Your task to perform on an android device: Open Google Chrome Image 0: 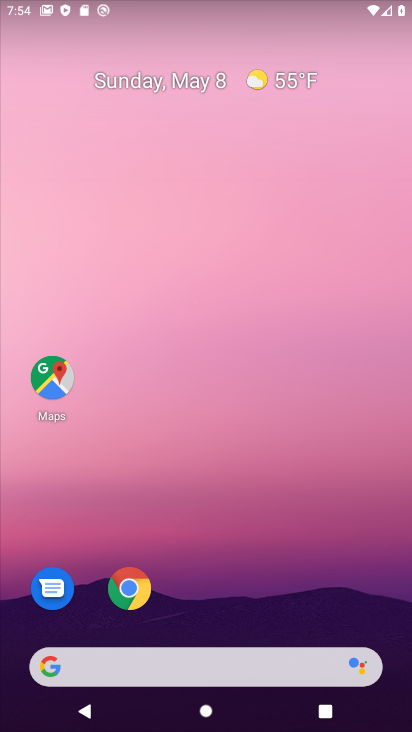
Step 0: drag from (339, 603) to (222, 21)
Your task to perform on an android device: Open Google Chrome Image 1: 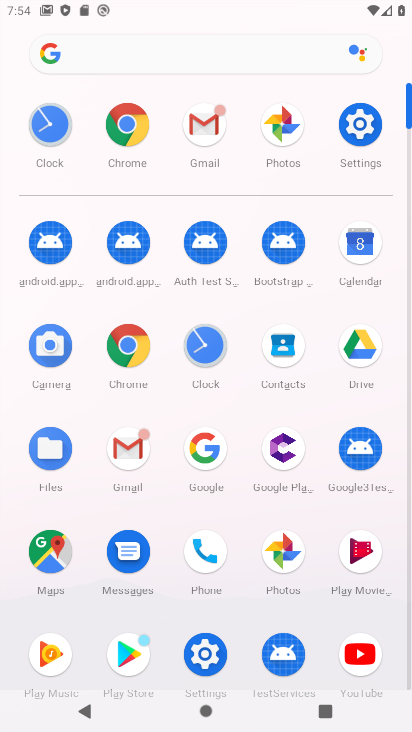
Step 1: click (117, 127)
Your task to perform on an android device: Open Google Chrome Image 2: 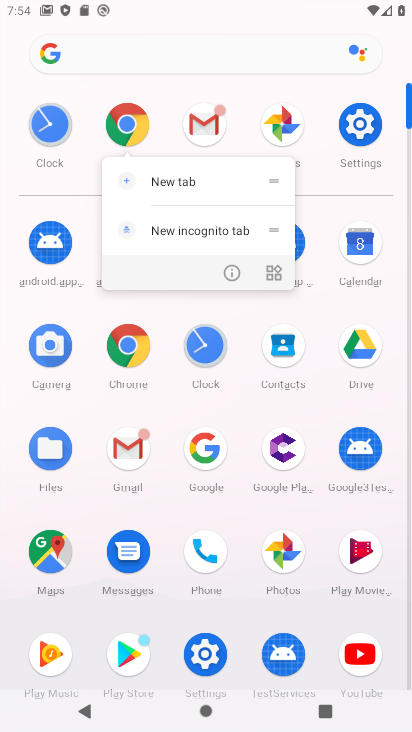
Step 2: click (117, 127)
Your task to perform on an android device: Open Google Chrome Image 3: 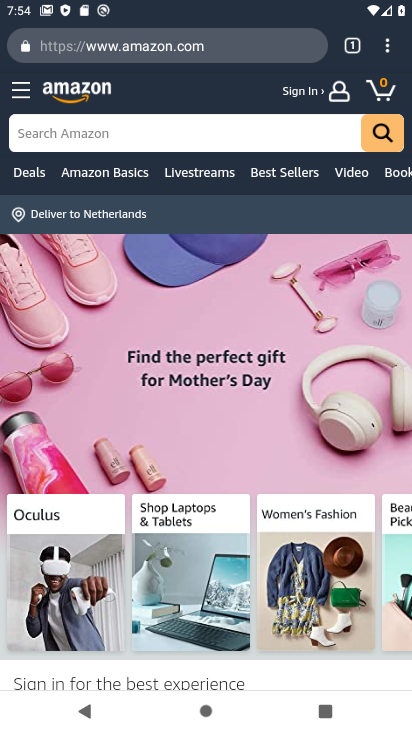
Step 3: task complete